Your task to perform on an android device: Open Yahoo.com Image 0: 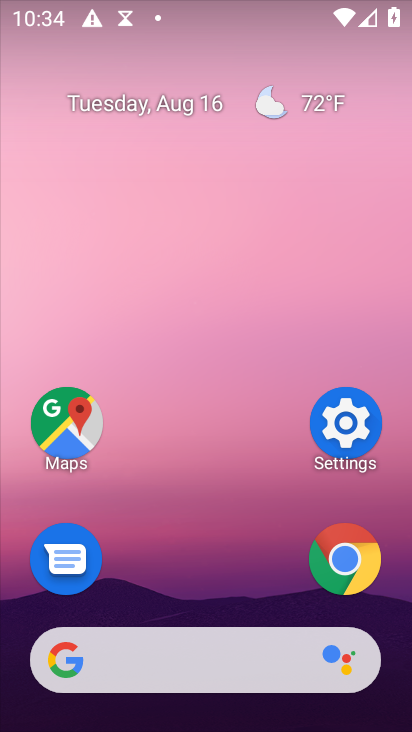
Step 0: click (342, 569)
Your task to perform on an android device: Open Yahoo.com Image 1: 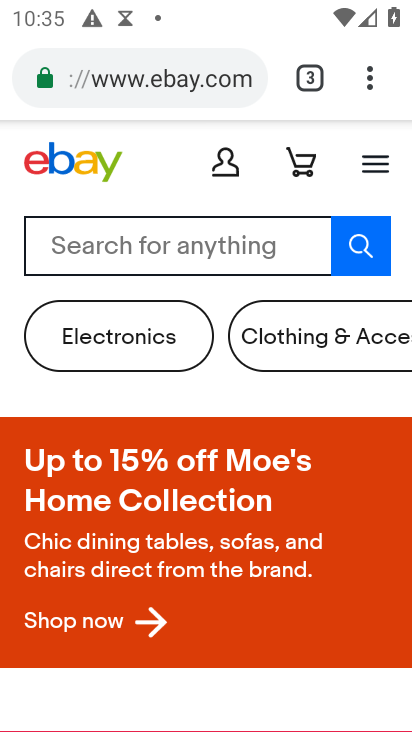
Step 1: drag from (366, 66) to (106, 157)
Your task to perform on an android device: Open Yahoo.com Image 2: 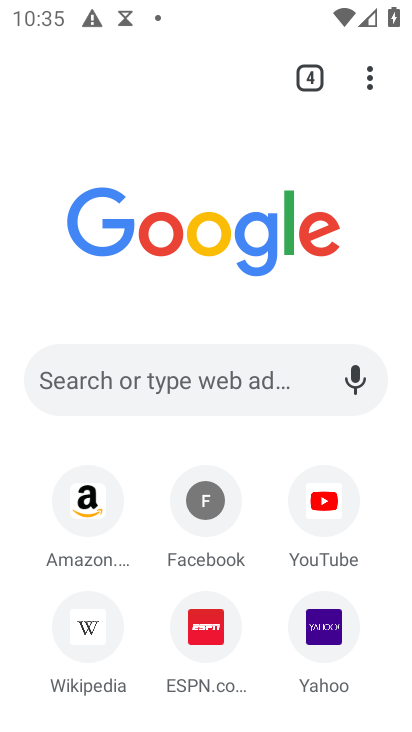
Step 2: click (335, 626)
Your task to perform on an android device: Open Yahoo.com Image 3: 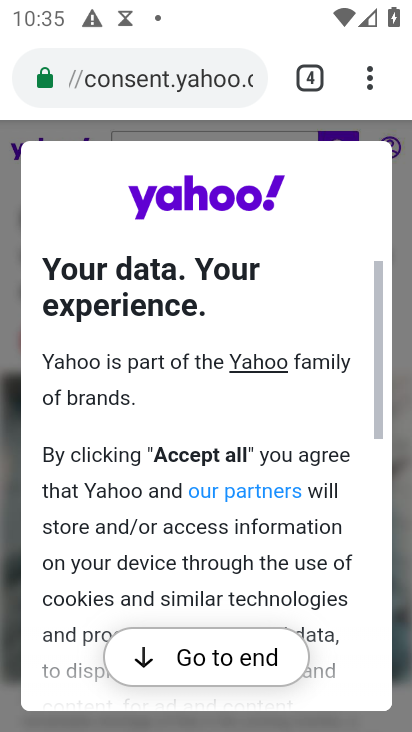
Step 3: click (219, 661)
Your task to perform on an android device: Open Yahoo.com Image 4: 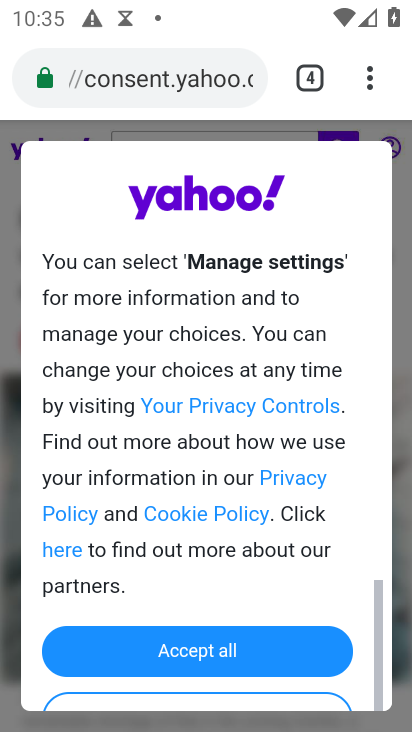
Step 4: click (219, 657)
Your task to perform on an android device: Open Yahoo.com Image 5: 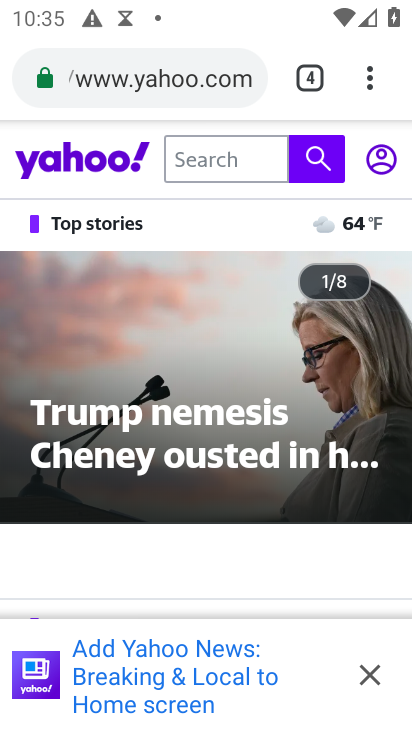
Step 5: task complete